Your task to perform on an android device: empty trash in the gmail app Image 0: 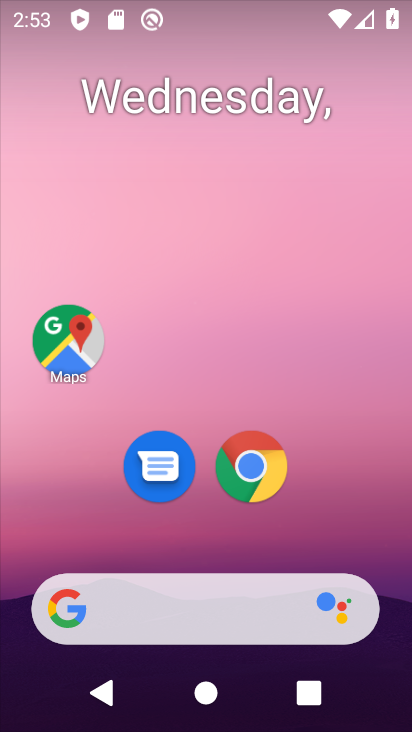
Step 0: drag from (236, 570) to (244, 5)
Your task to perform on an android device: empty trash in the gmail app Image 1: 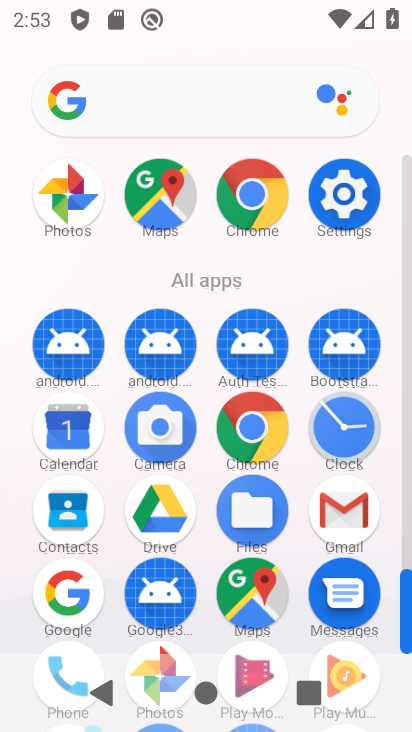
Step 1: click (356, 522)
Your task to perform on an android device: empty trash in the gmail app Image 2: 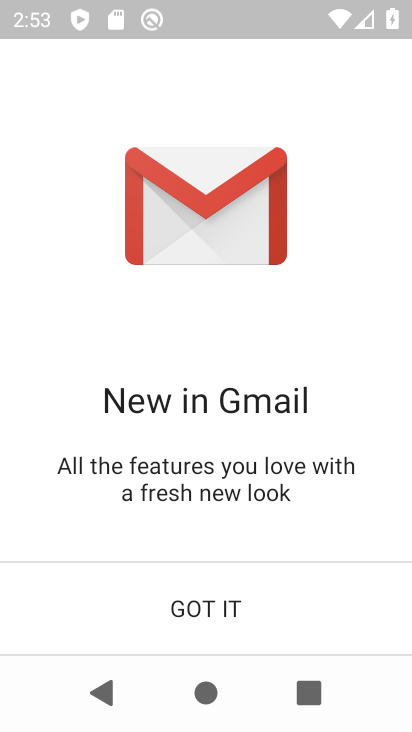
Step 2: click (204, 607)
Your task to perform on an android device: empty trash in the gmail app Image 3: 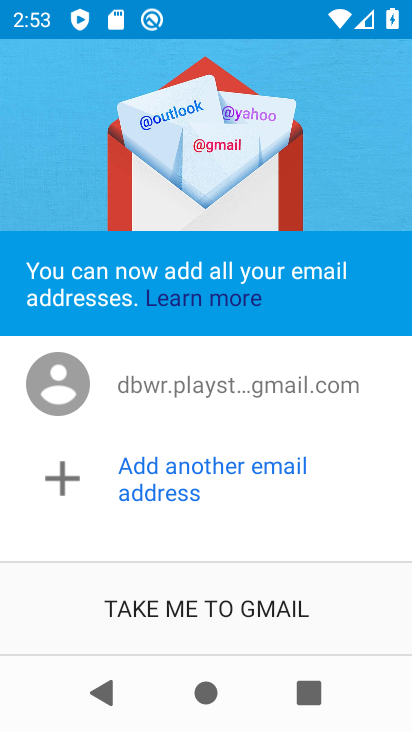
Step 3: click (204, 593)
Your task to perform on an android device: empty trash in the gmail app Image 4: 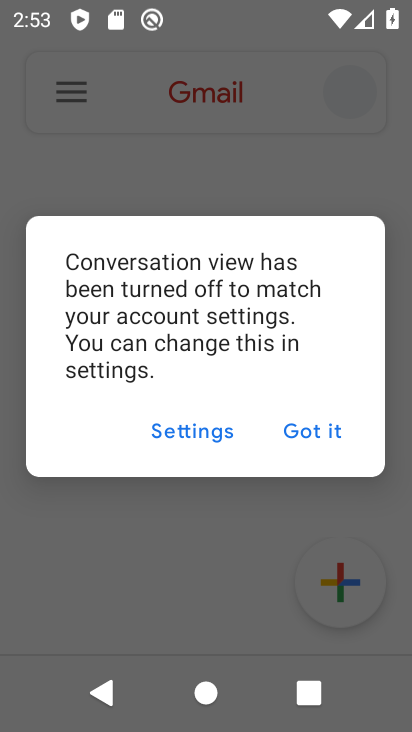
Step 4: click (314, 429)
Your task to perform on an android device: empty trash in the gmail app Image 5: 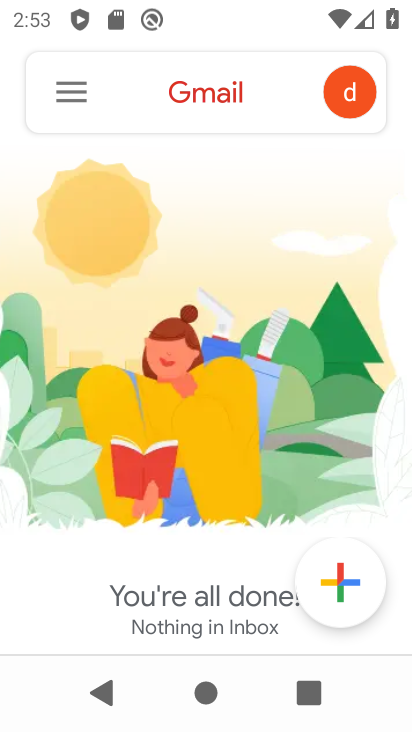
Step 5: click (63, 90)
Your task to perform on an android device: empty trash in the gmail app Image 6: 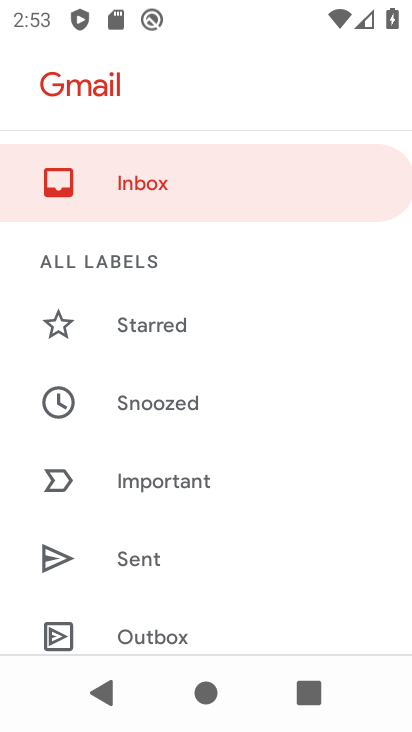
Step 6: drag from (142, 574) to (143, 210)
Your task to perform on an android device: empty trash in the gmail app Image 7: 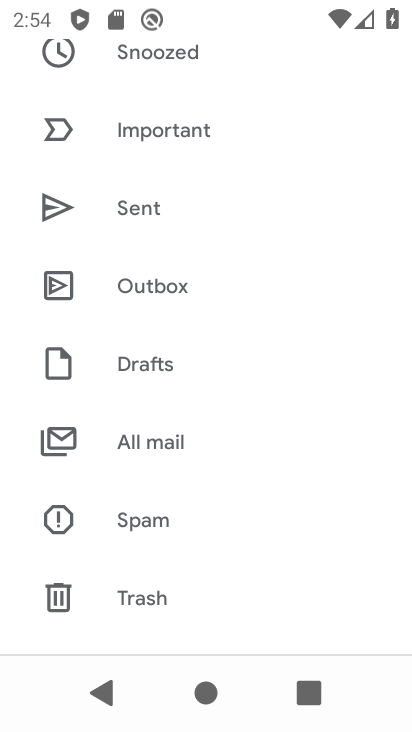
Step 7: click (140, 581)
Your task to perform on an android device: empty trash in the gmail app Image 8: 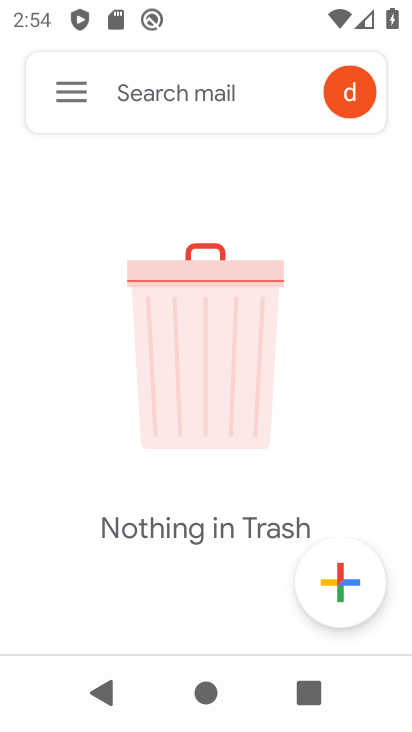
Step 8: task complete